Your task to perform on an android device: show emergency info Image 0: 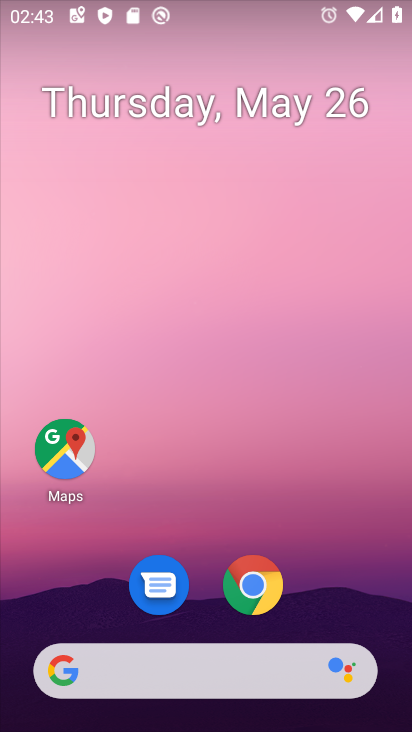
Step 0: drag from (238, 463) to (246, 10)
Your task to perform on an android device: show emergency info Image 1: 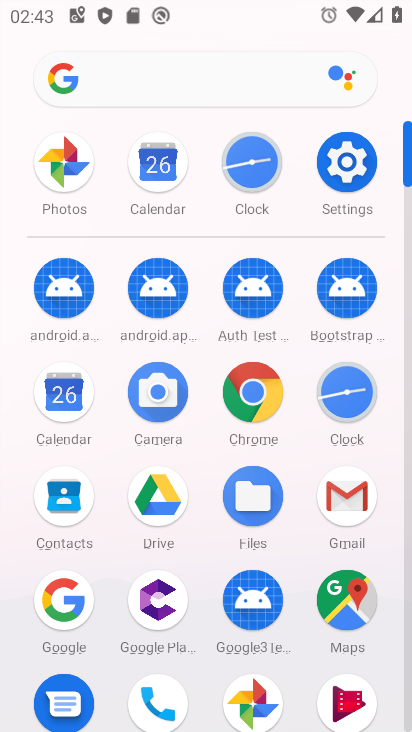
Step 1: click (342, 164)
Your task to perform on an android device: show emergency info Image 2: 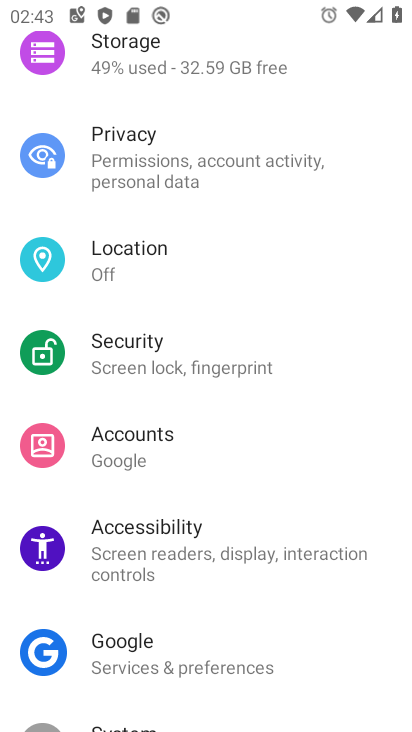
Step 2: drag from (251, 621) to (303, 257)
Your task to perform on an android device: show emergency info Image 3: 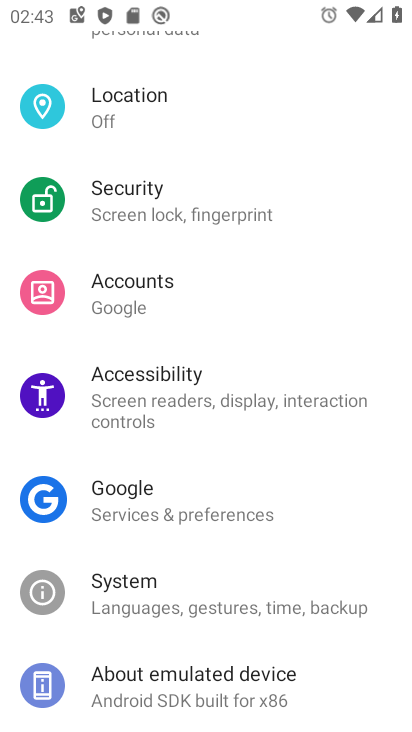
Step 3: click (238, 678)
Your task to perform on an android device: show emergency info Image 4: 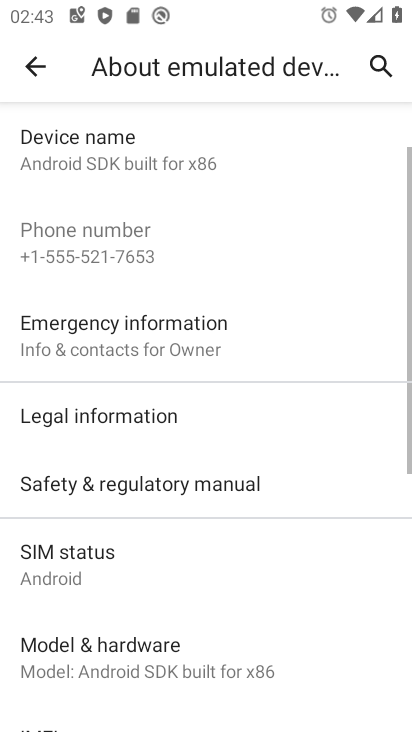
Step 4: click (191, 331)
Your task to perform on an android device: show emergency info Image 5: 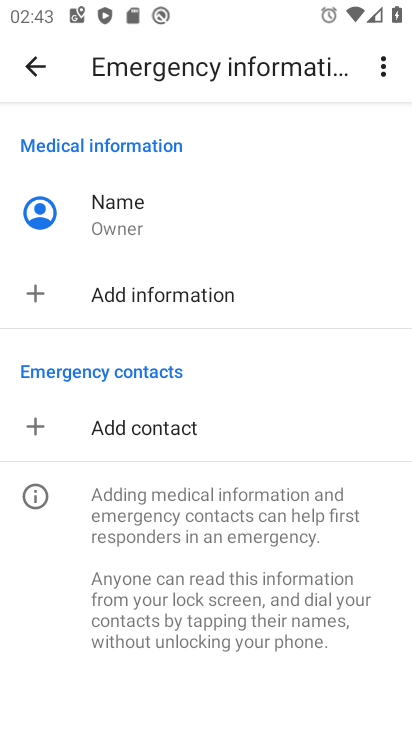
Step 5: task complete